Your task to perform on an android device: turn off javascript in the chrome app Image 0: 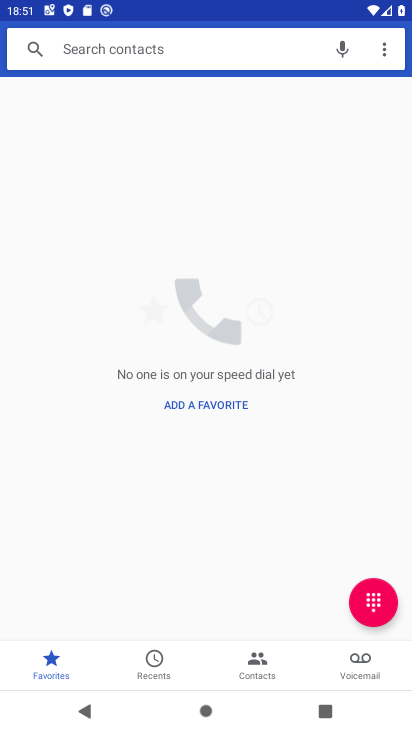
Step 0: press home button
Your task to perform on an android device: turn off javascript in the chrome app Image 1: 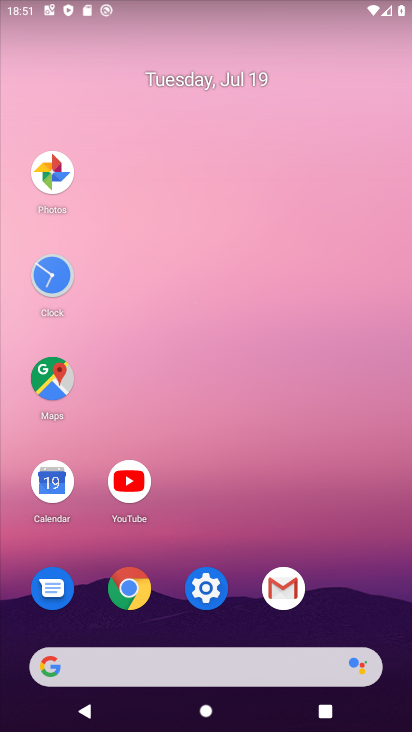
Step 1: click (119, 591)
Your task to perform on an android device: turn off javascript in the chrome app Image 2: 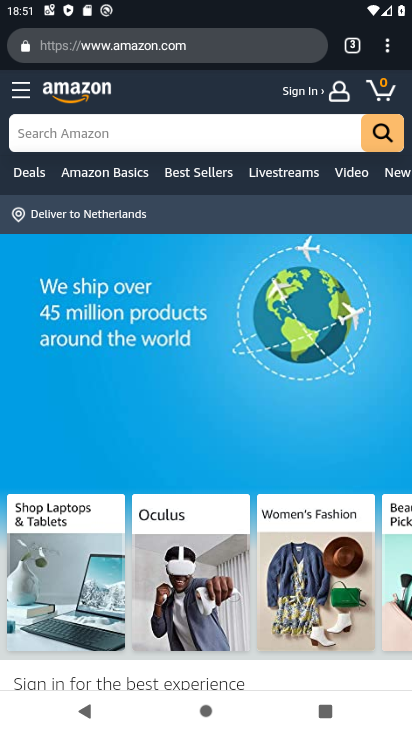
Step 2: click (387, 42)
Your task to perform on an android device: turn off javascript in the chrome app Image 3: 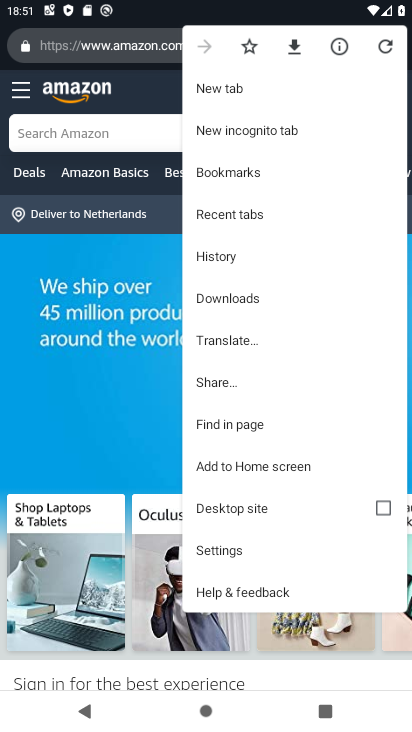
Step 3: click (226, 545)
Your task to perform on an android device: turn off javascript in the chrome app Image 4: 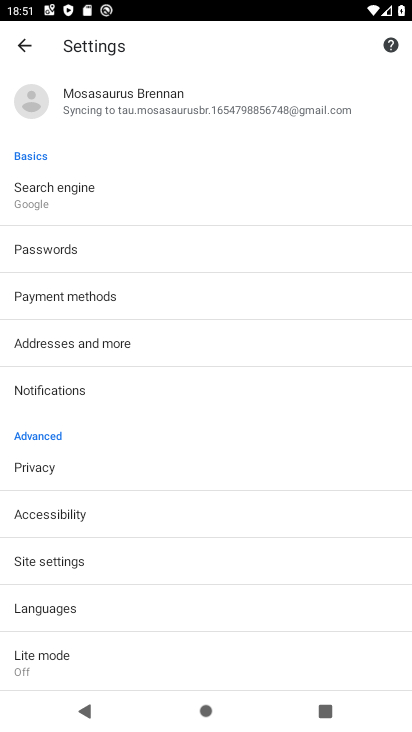
Step 4: click (54, 559)
Your task to perform on an android device: turn off javascript in the chrome app Image 5: 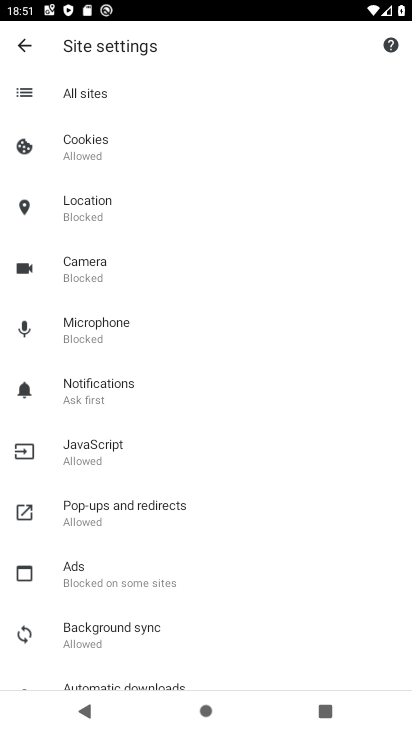
Step 5: click (93, 444)
Your task to perform on an android device: turn off javascript in the chrome app Image 6: 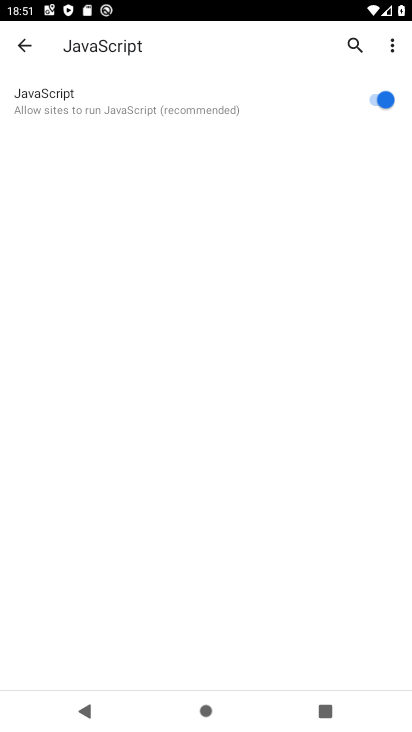
Step 6: click (384, 97)
Your task to perform on an android device: turn off javascript in the chrome app Image 7: 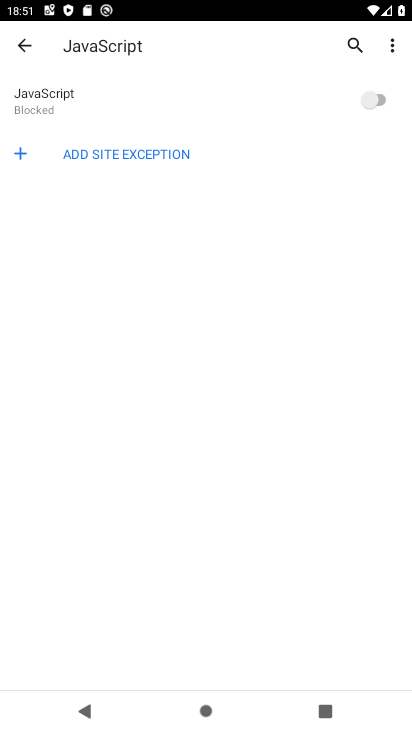
Step 7: task complete